Your task to perform on an android device: allow notifications from all sites in the chrome app Image 0: 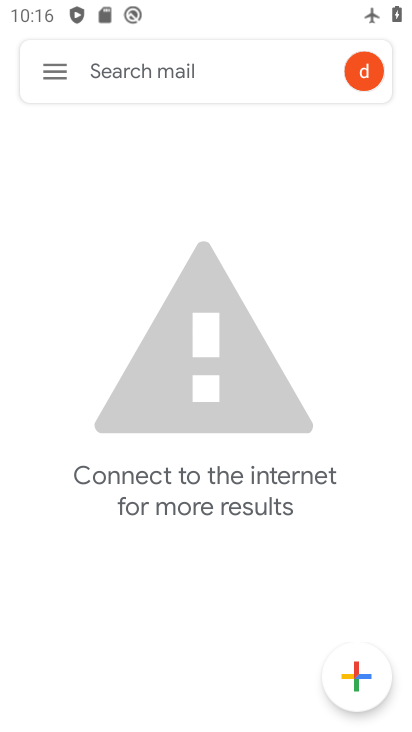
Step 0: press back button
Your task to perform on an android device: allow notifications from all sites in the chrome app Image 1: 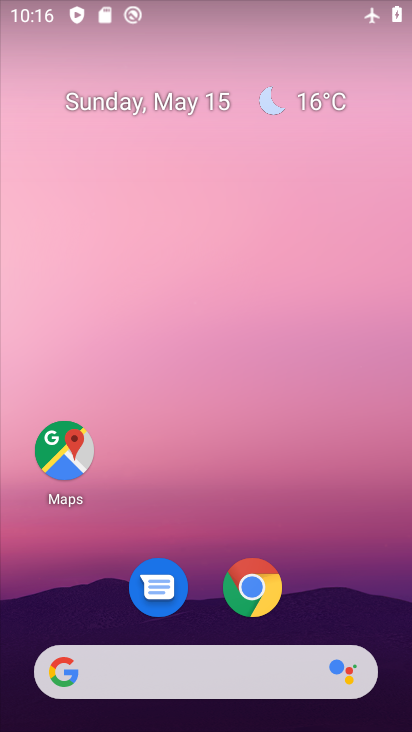
Step 1: drag from (299, 568) to (284, 39)
Your task to perform on an android device: allow notifications from all sites in the chrome app Image 2: 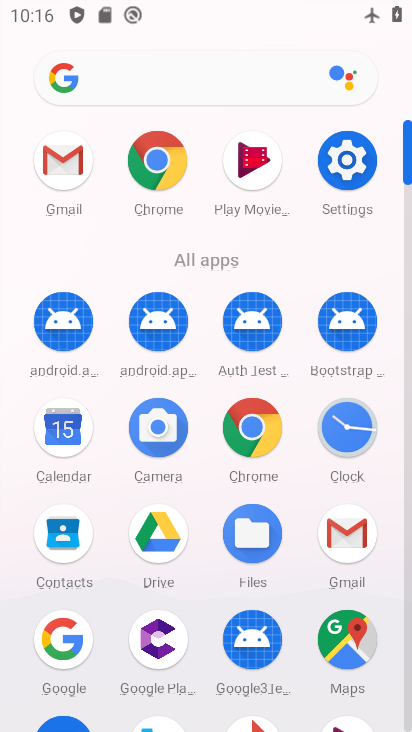
Step 2: click (153, 155)
Your task to perform on an android device: allow notifications from all sites in the chrome app Image 3: 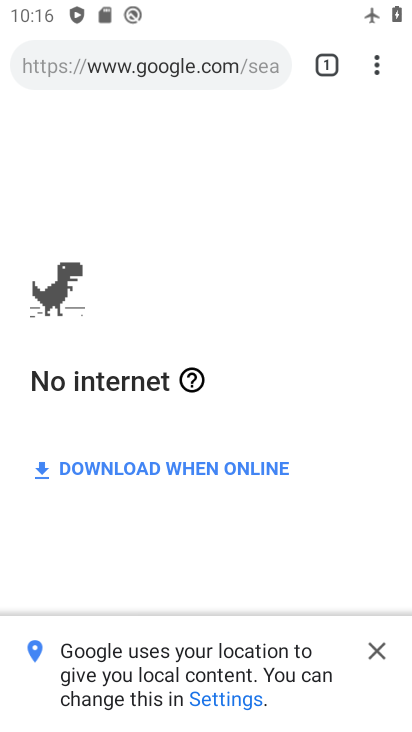
Step 3: drag from (377, 73) to (159, 627)
Your task to perform on an android device: allow notifications from all sites in the chrome app Image 4: 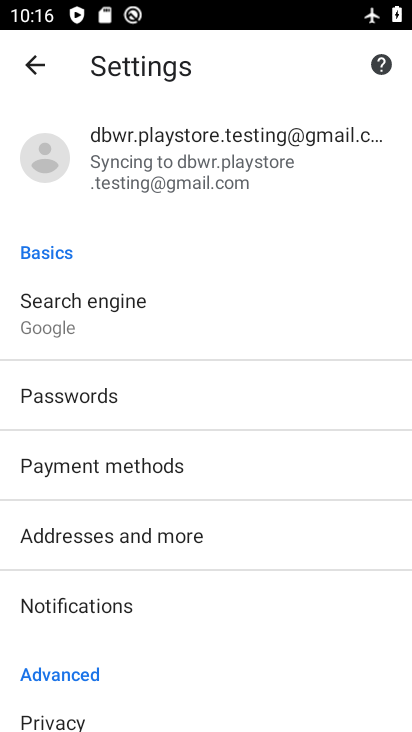
Step 4: click (144, 610)
Your task to perform on an android device: allow notifications from all sites in the chrome app Image 5: 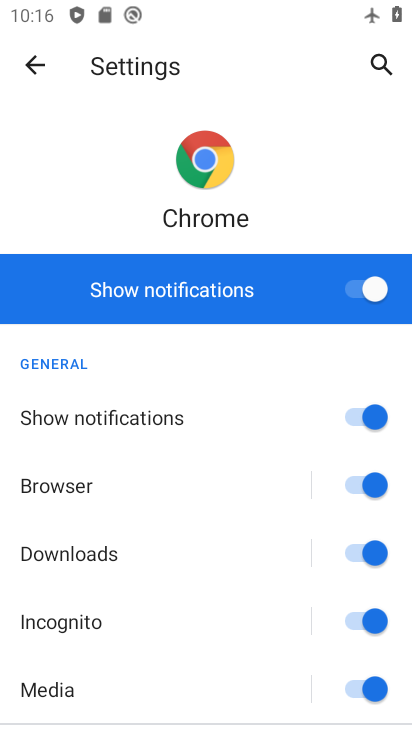
Step 5: click (30, 77)
Your task to perform on an android device: allow notifications from all sites in the chrome app Image 6: 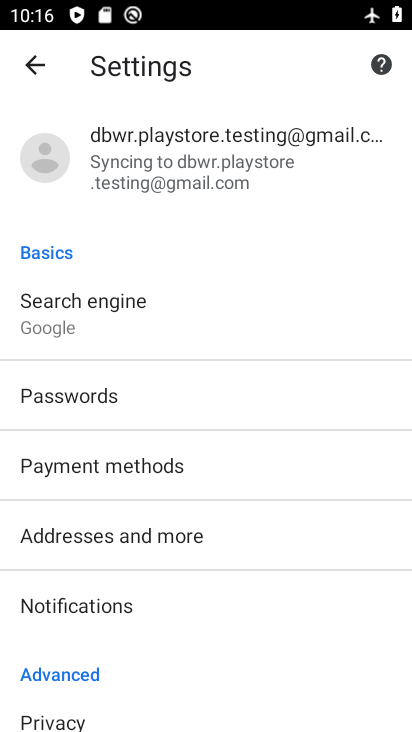
Step 6: drag from (249, 594) to (273, 189)
Your task to perform on an android device: allow notifications from all sites in the chrome app Image 7: 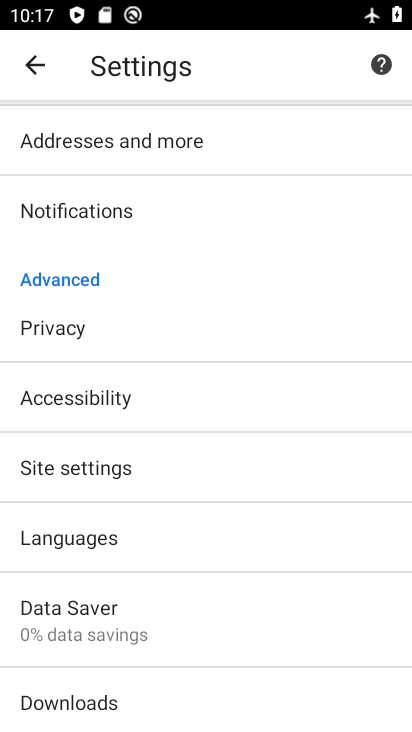
Step 7: click (113, 485)
Your task to perform on an android device: allow notifications from all sites in the chrome app Image 8: 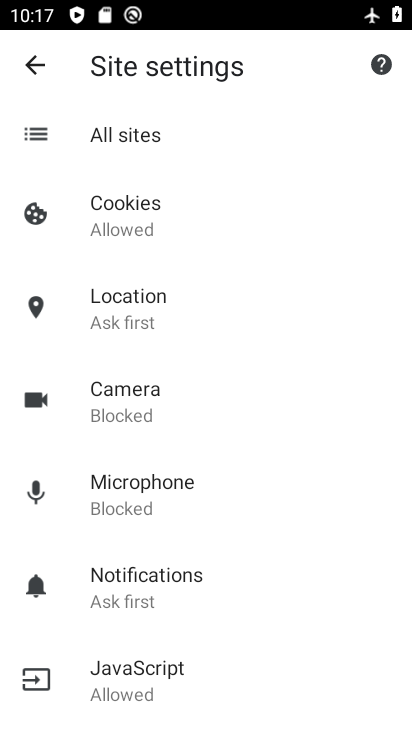
Step 8: drag from (270, 524) to (300, 249)
Your task to perform on an android device: allow notifications from all sites in the chrome app Image 9: 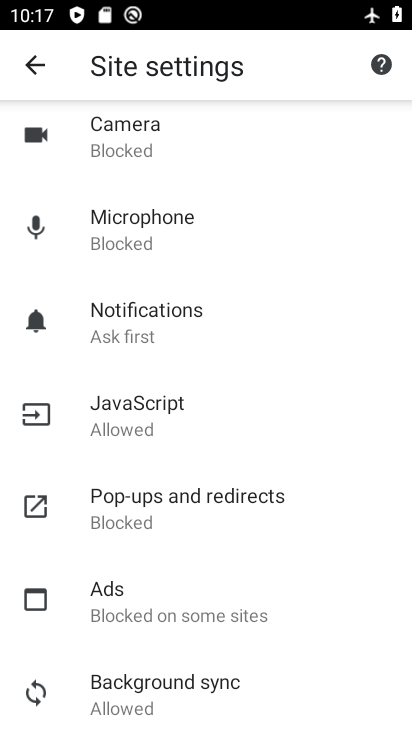
Step 9: click (182, 328)
Your task to perform on an android device: allow notifications from all sites in the chrome app Image 10: 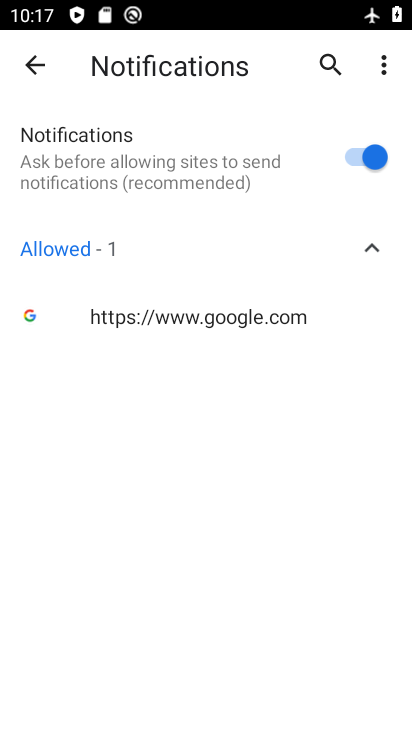
Step 10: click (27, 62)
Your task to perform on an android device: allow notifications from all sites in the chrome app Image 11: 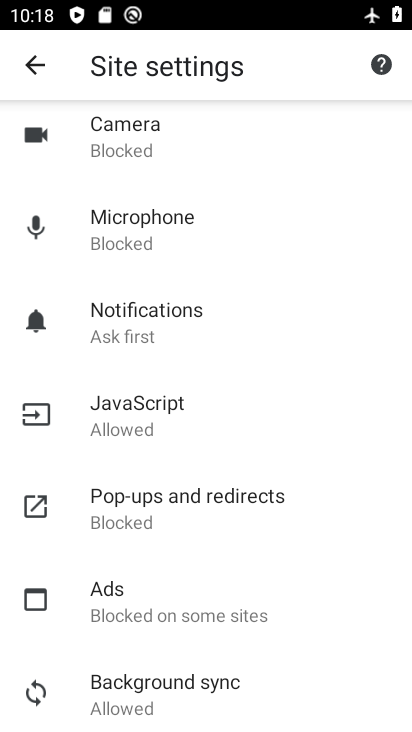
Step 11: task complete